Your task to perform on an android device: delete the emails in spam in the gmail app Image 0: 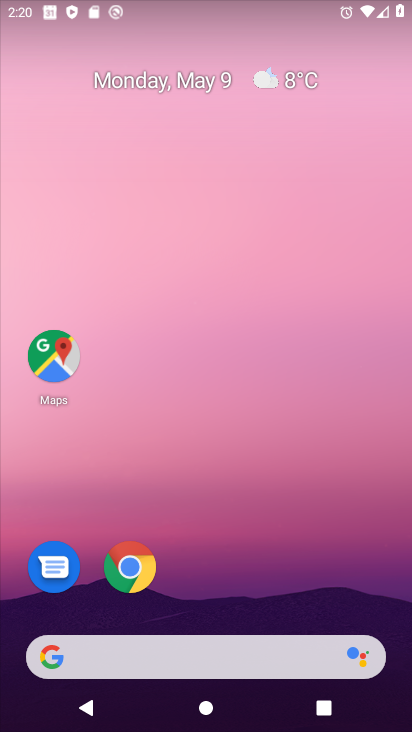
Step 0: drag from (248, 542) to (267, 187)
Your task to perform on an android device: delete the emails in spam in the gmail app Image 1: 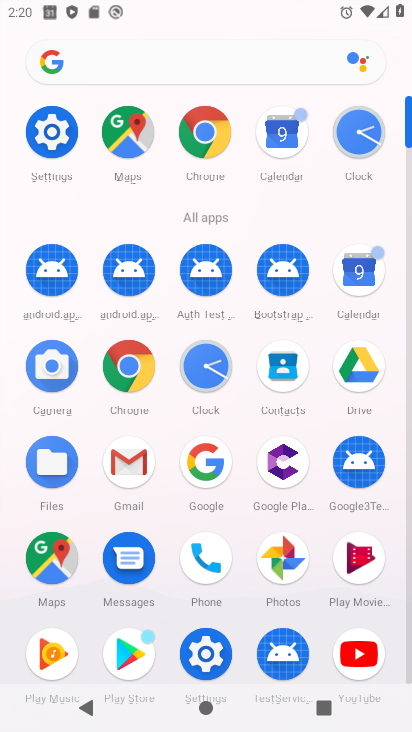
Step 1: click (128, 451)
Your task to perform on an android device: delete the emails in spam in the gmail app Image 2: 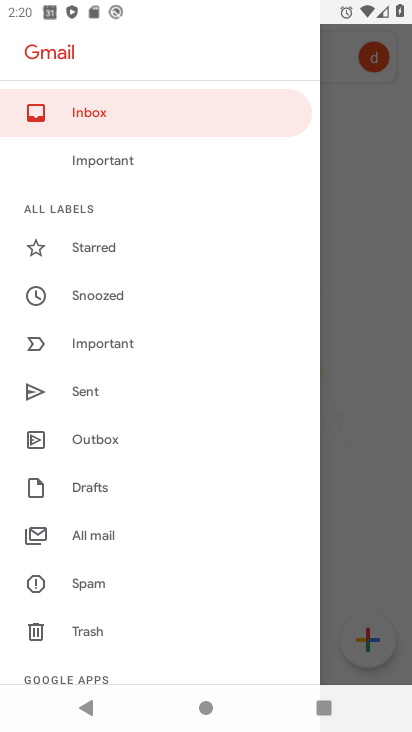
Step 2: click (87, 592)
Your task to perform on an android device: delete the emails in spam in the gmail app Image 3: 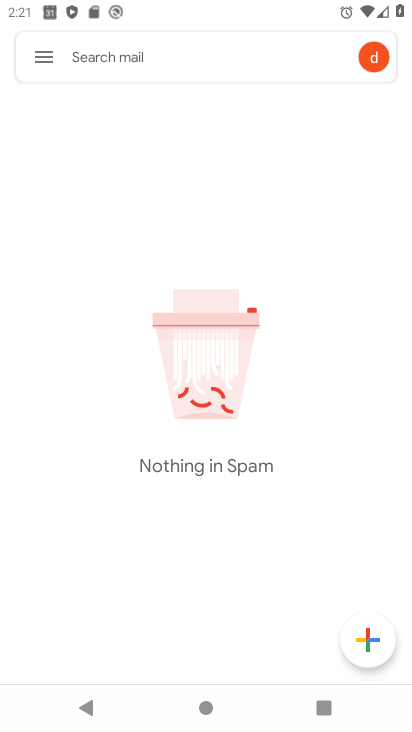
Step 3: task complete